Your task to perform on an android device: change your default location settings in chrome Image 0: 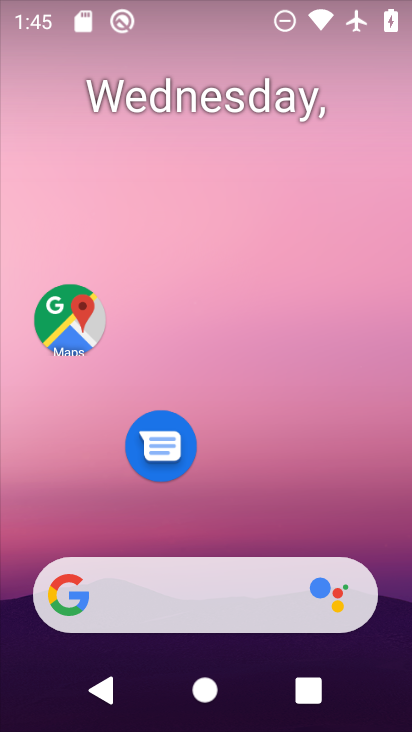
Step 0: drag from (336, 472) to (268, 135)
Your task to perform on an android device: change your default location settings in chrome Image 1: 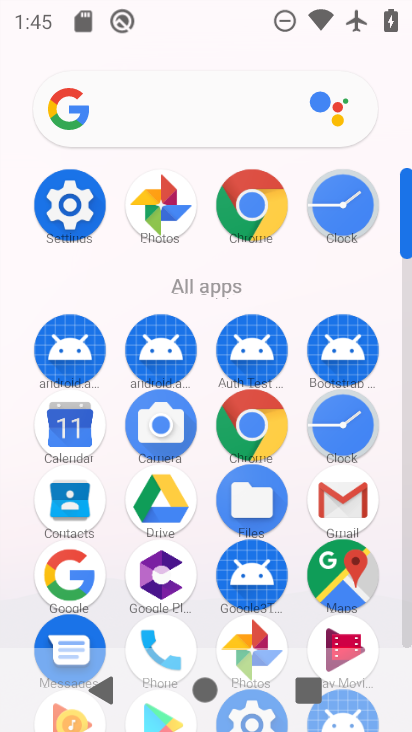
Step 1: click (258, 181)
Your task to perform on an android device: change your default location settings in chrome Image 2: 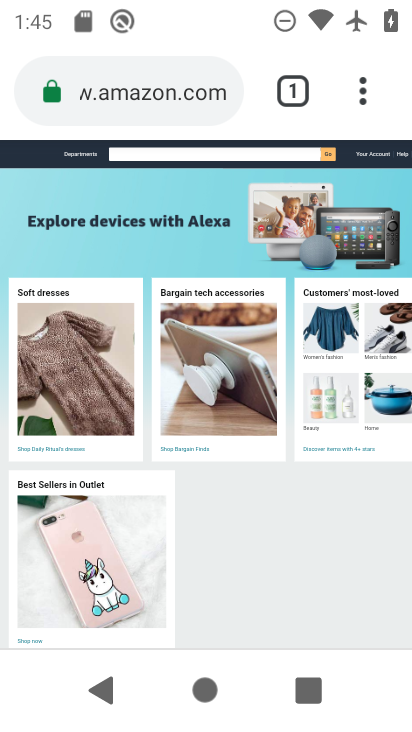
Step 2: click (368, 93)
Your task to perform on an android device: change your default location settings in chrome Image 3: 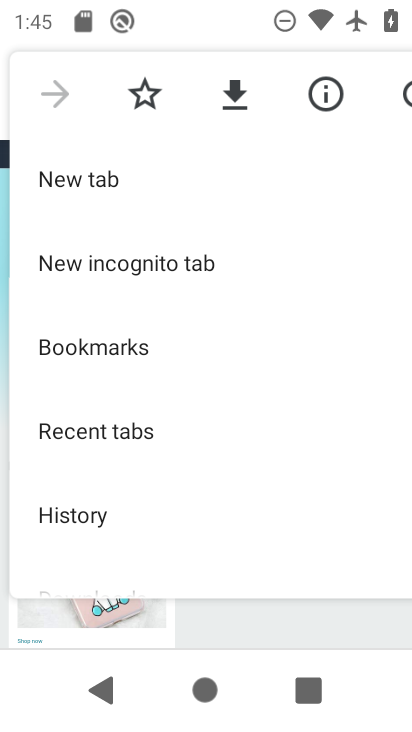
Step 3: drag from (176, 488) to (175, 54)
Your task to perform on an android device: change your default location settings in chrome Image 4: 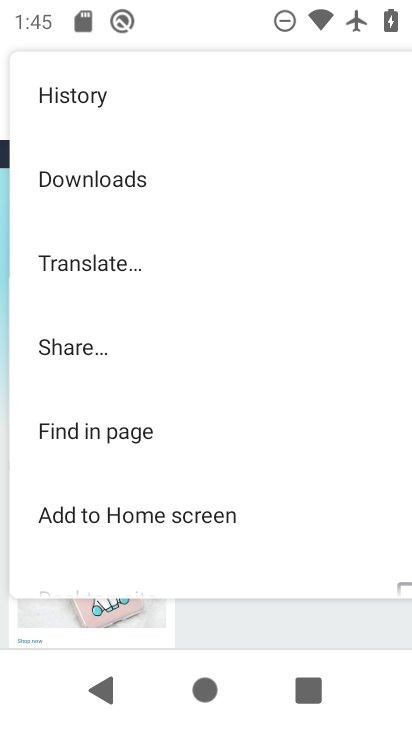
Step 4: drag from (164, 562) to (119, 168)
Your task to perform on an android device: change your default location settings in chrome Image 5: 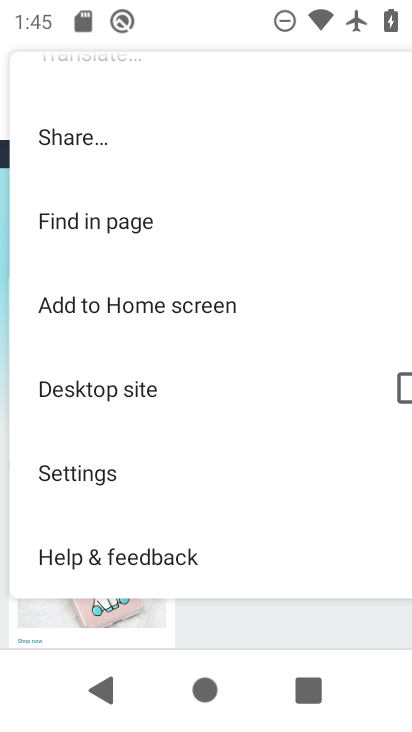
Step 5: click (57, 480)
Your task to perform on an android device: change your default location settings in chrome Image 6: 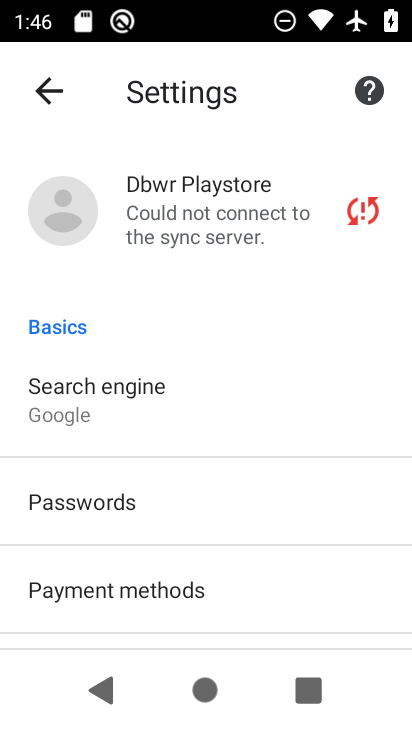
Step 6: task complete